Your task to perform on an android device: open app "NewsBreak: Local News & Alerts" Image 0: 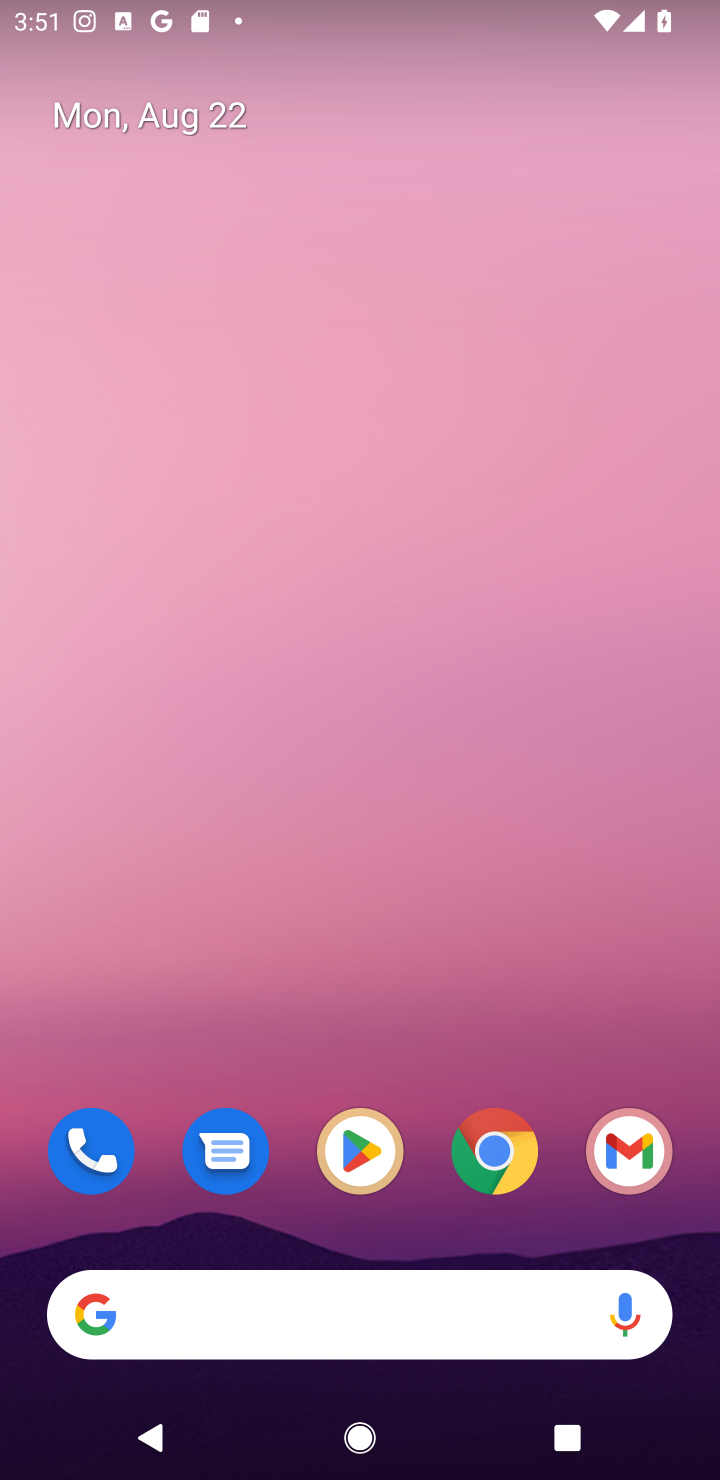
Step 0: press home button
Your task to perform on an android device: open app "NewsBreak: Local News & Alerts" Image 1: 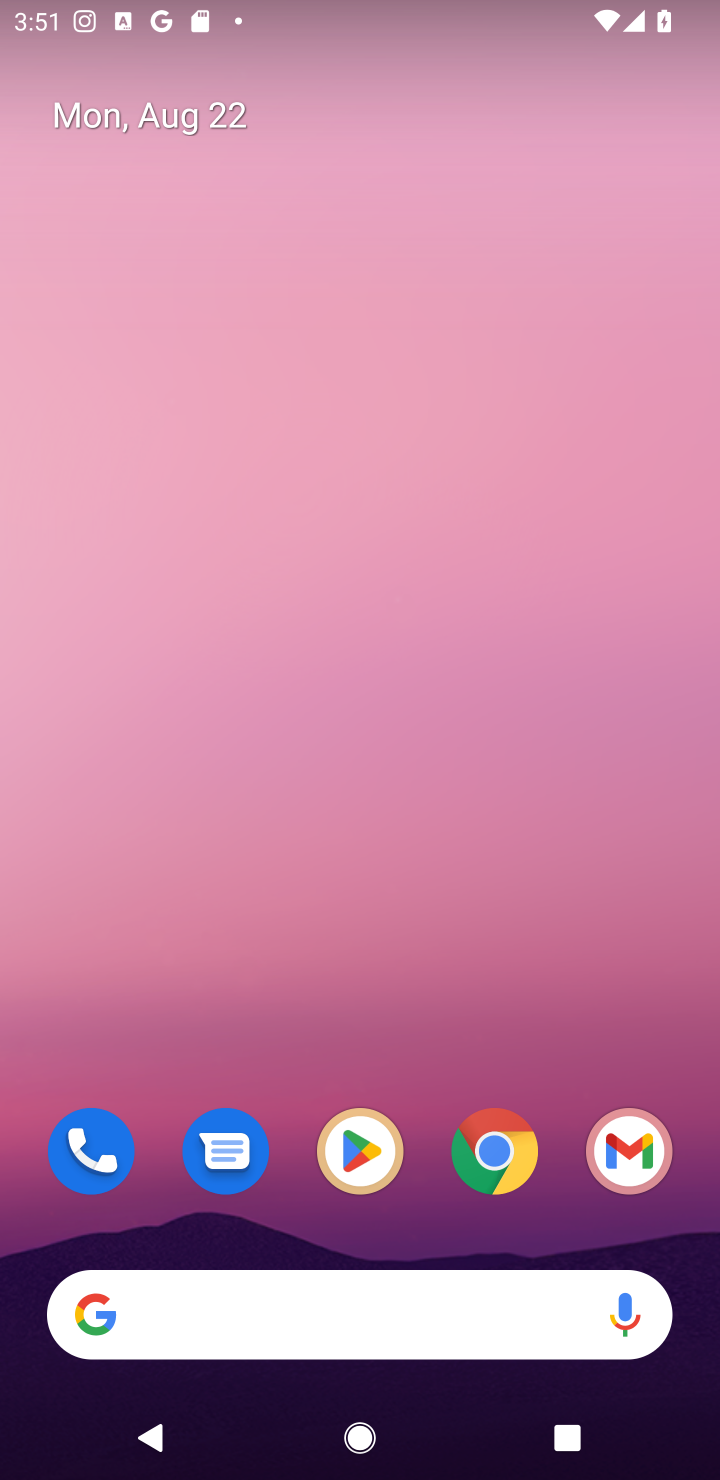
Step 1: click (349, 1158)
Your task to perform on an android device: open app "NewsBreak: Local News & Alerts" Image 2: 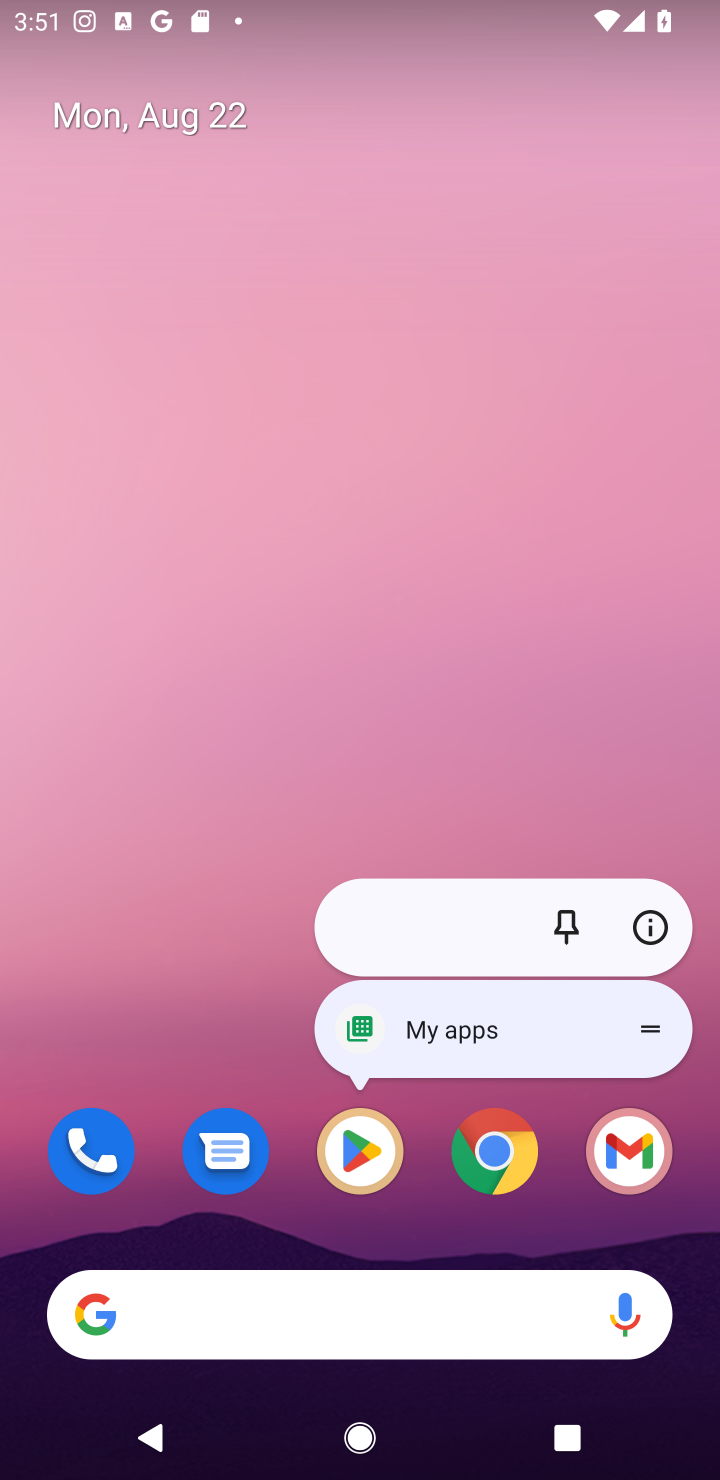
Step 2: click (349, 1162)
Your task to perform on an android device: open app "NewsBreak: Local News & Alerts" Image 3: 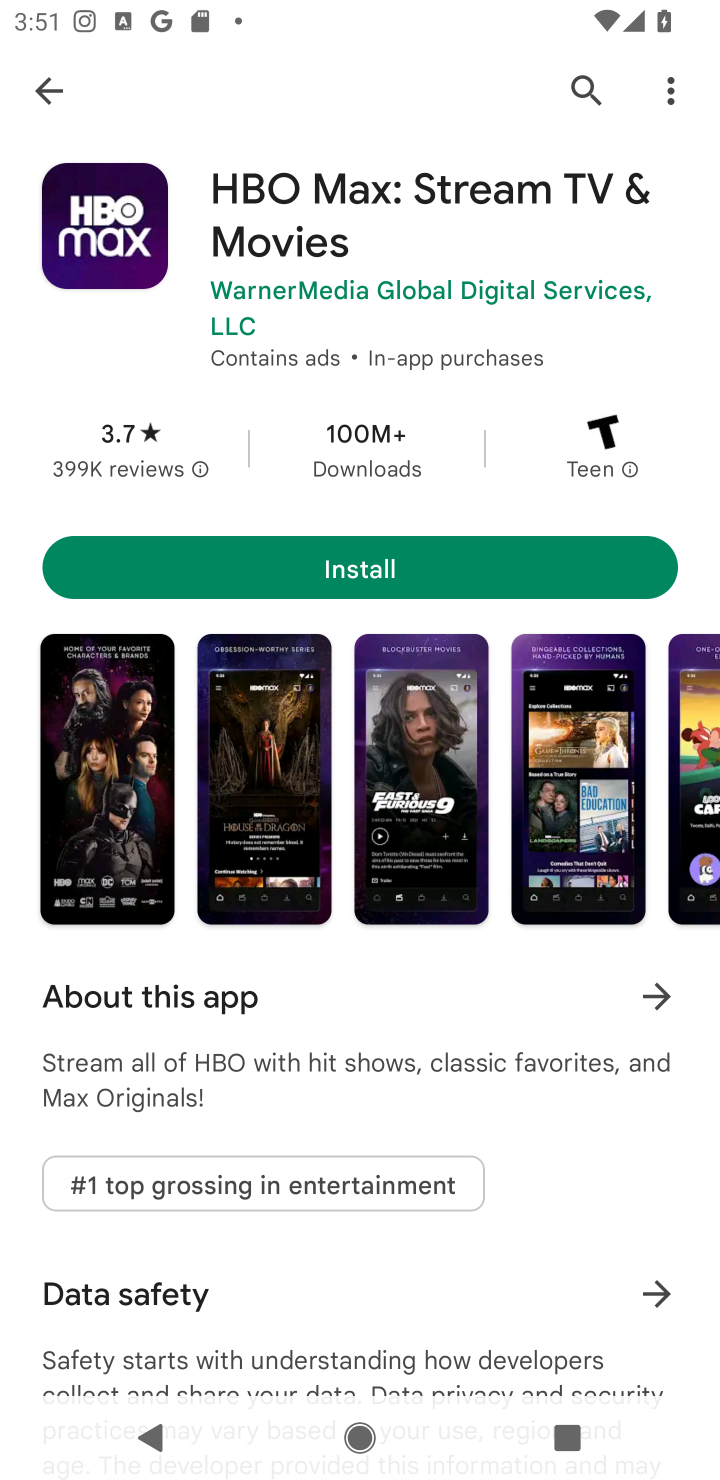
Step 3: click (576, 79)
Your task to perform on an android device: open app "NewsBreak: Local News & Alerts" Image 4: 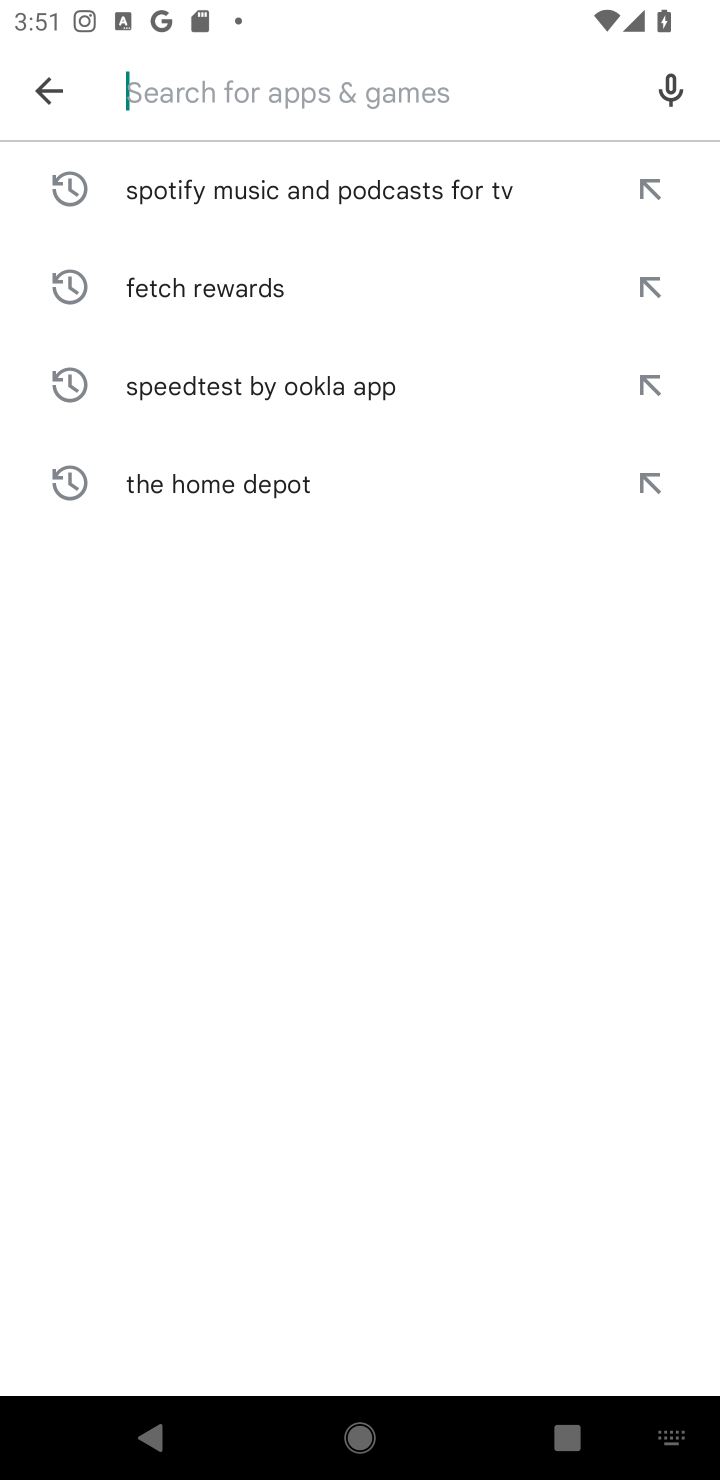
Step 4: type "NewsBreak: Local News & Alerts"
Your task to perform on an android device: open app "NewsBreak: Local News & Alerts" Image 5: 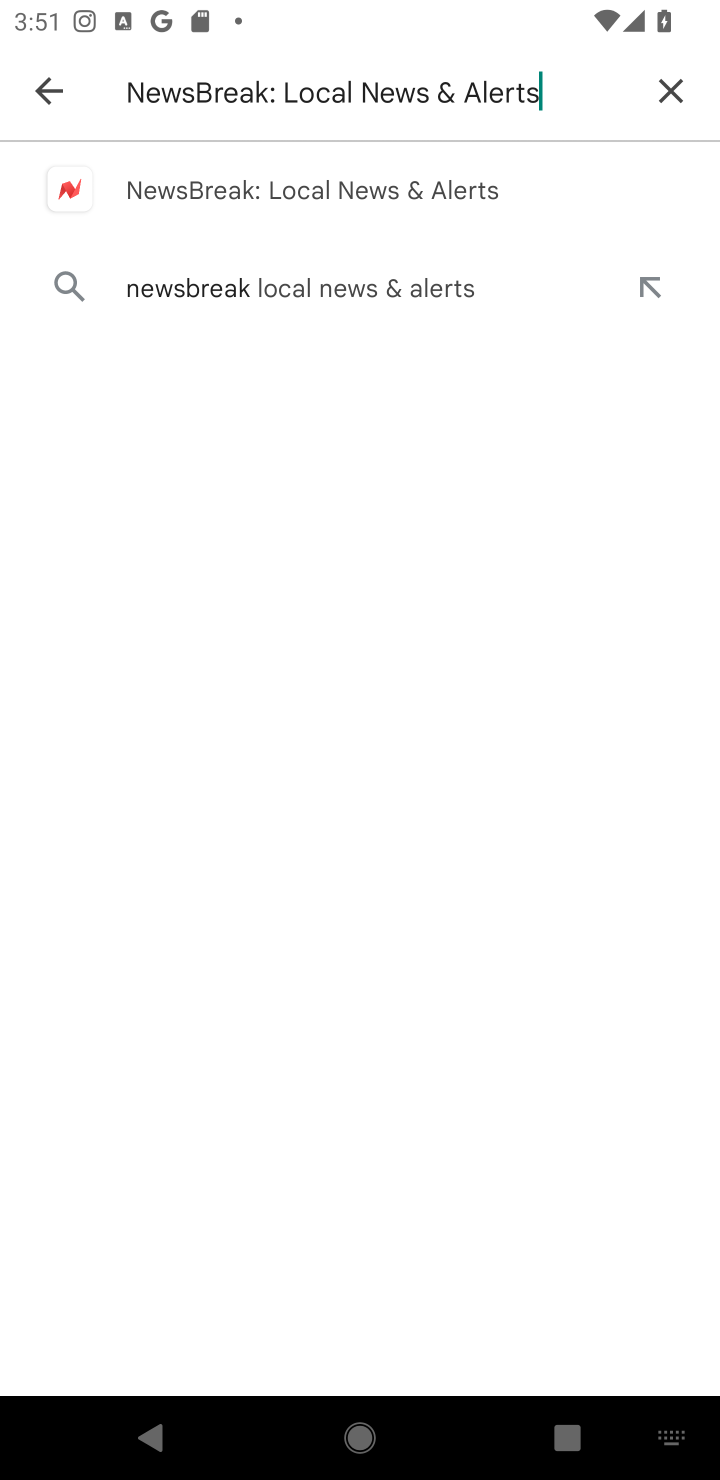
Step 5: click (441, 194)
Your task to perform on an android device: open app "NewsBreak: Local News & Alerts" Image 6: 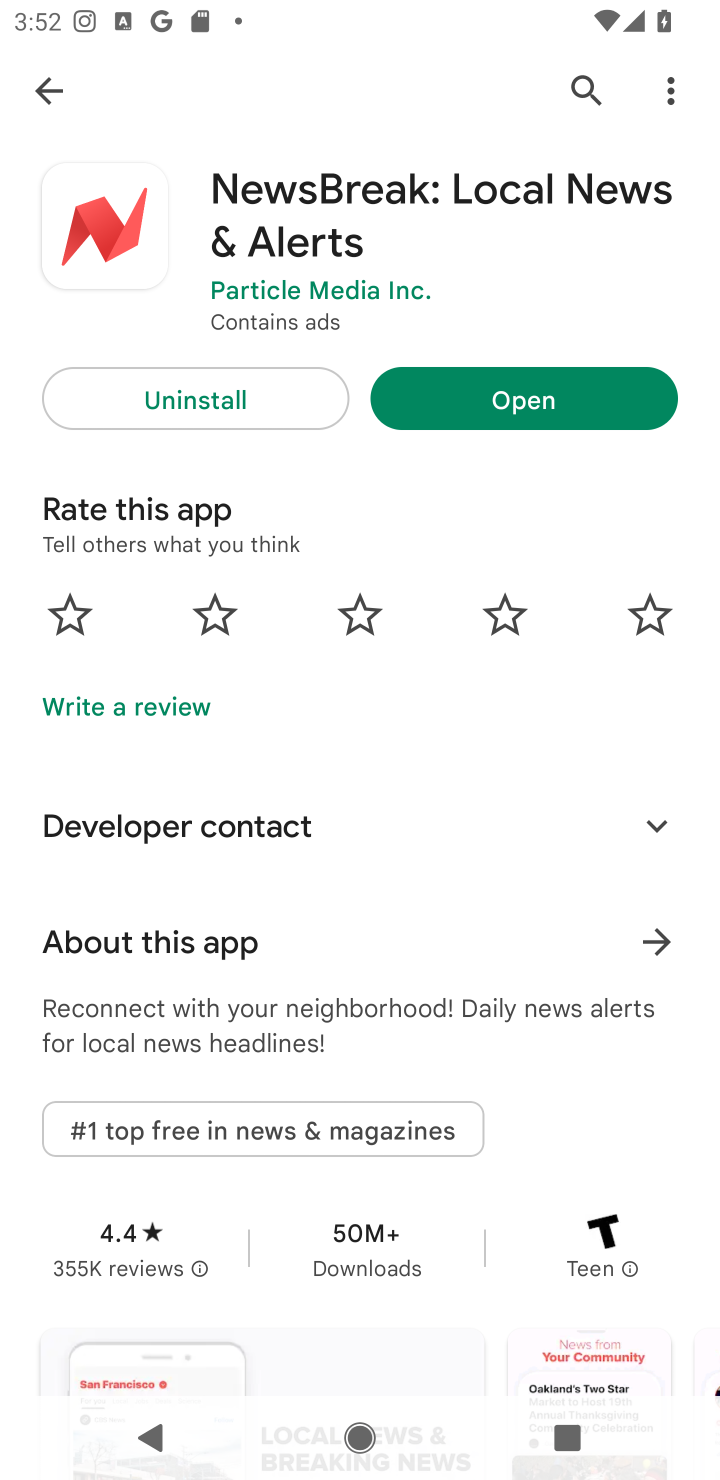
Step 6: click (613, 406)
Your task to perform on an android device: open app "NewsBreak: Local News & Alerts" Image 7: 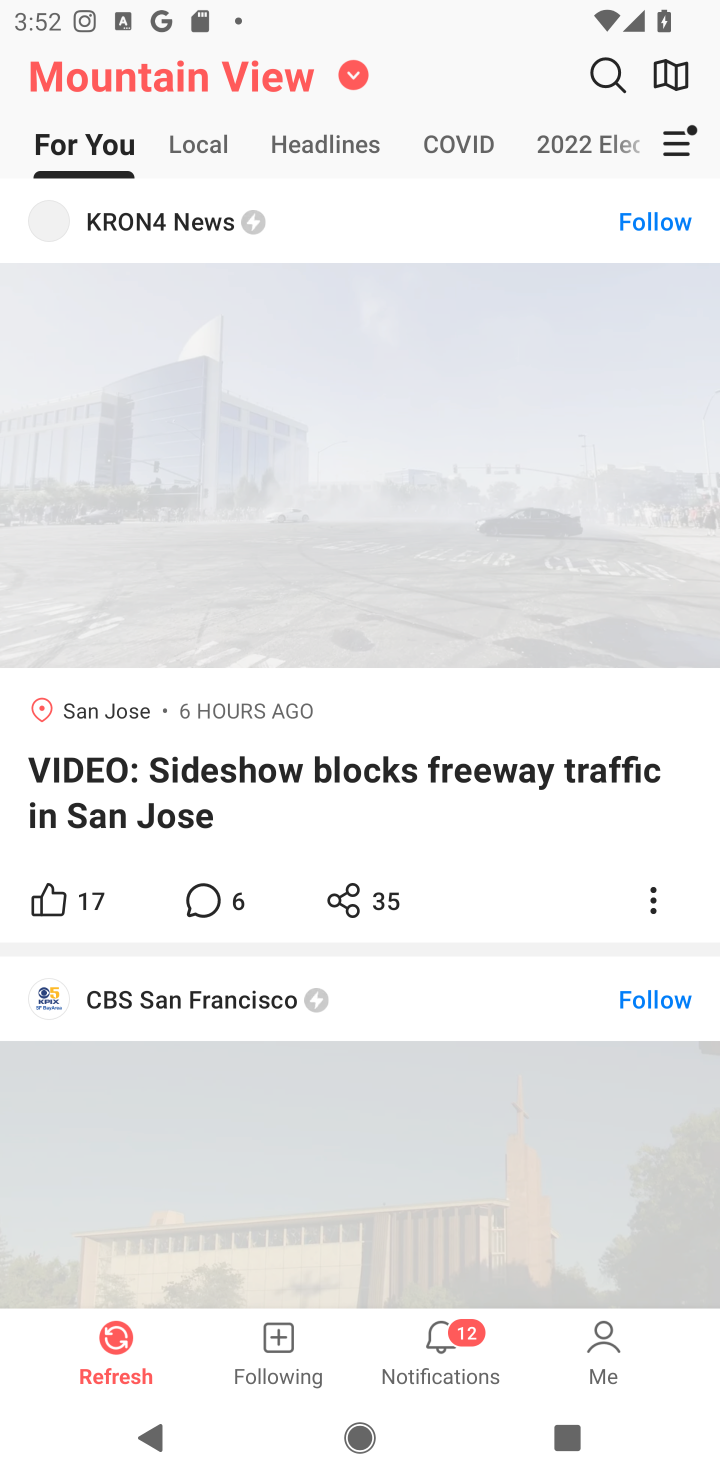
Step 7: task complete